Your task to perform on an android device: Go to internet settings Image 0: 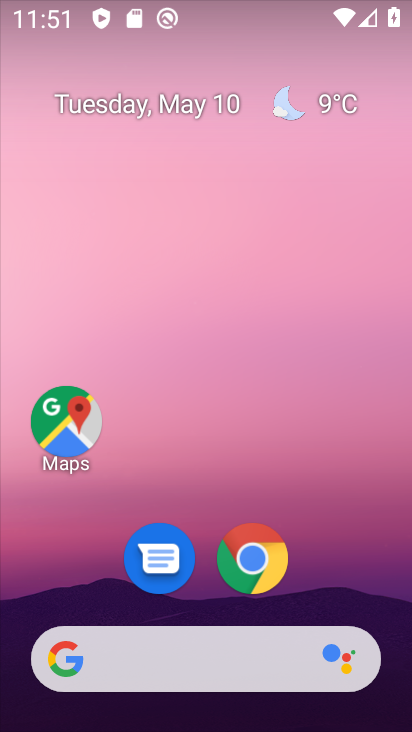
Step 0: drag from (367, 573) to (383, 189)
Your task to perform on an android device: Go to internet settings Image 1: 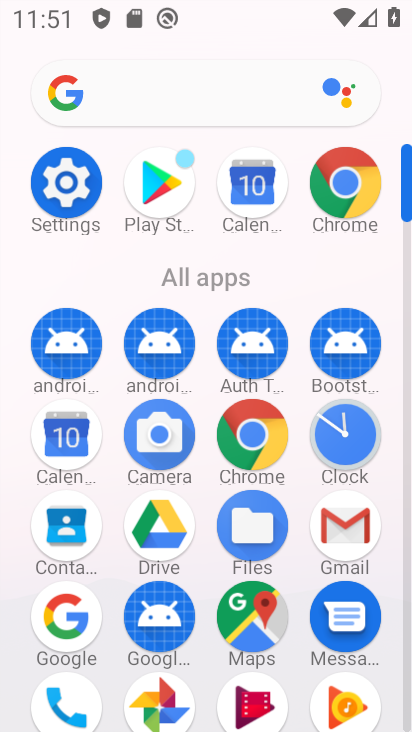
Step 1: click (54, 186)
Your task to perform on an android device: Go to internet settings Image 2: 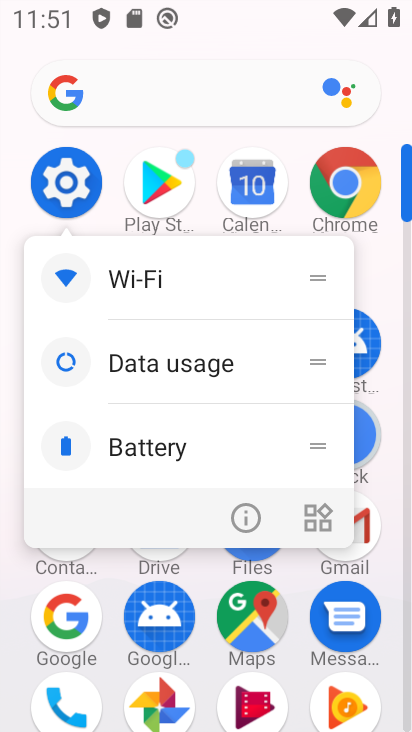
Step 2: click (62, 211)
Your task to perform on an android device: Go to internet settings Image 3: 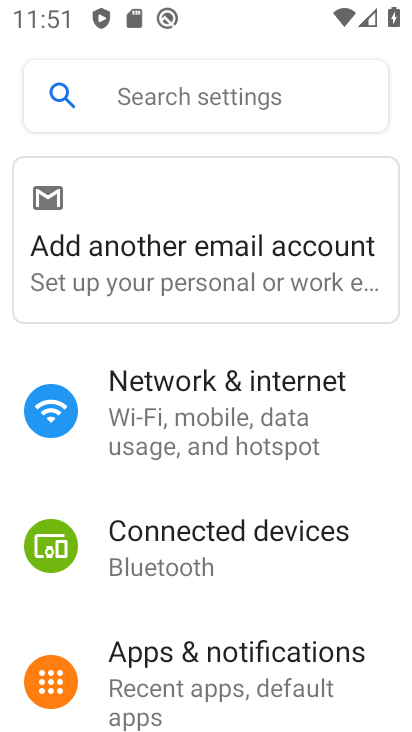
Step 3: click (157, 398)
Your task to perform on an android device: Go to internet settings Image 4: 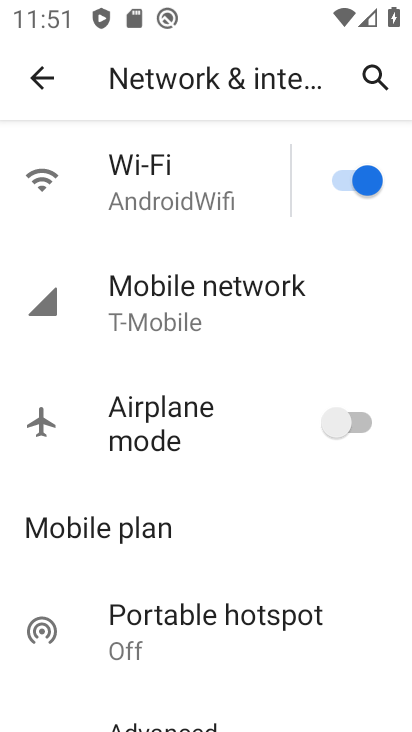
Step 4: task complete